Your task to perform on an android device: see tabs open on other devices in the chrome app Image 0: 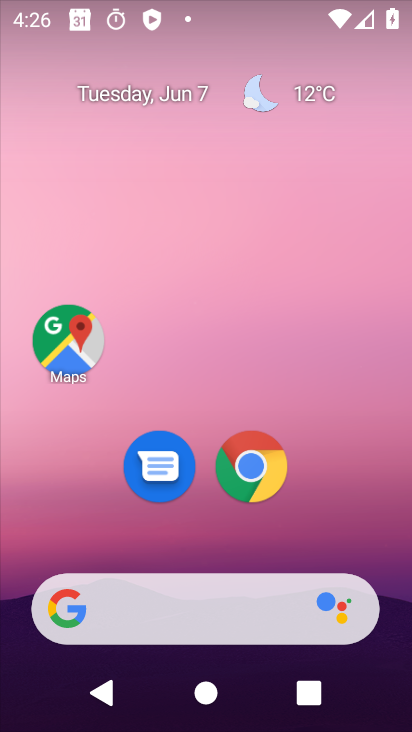
Step 0: click (256, 454)
Your task to perform on an android device: see tabs open on other devices in the chrome app Image 1: 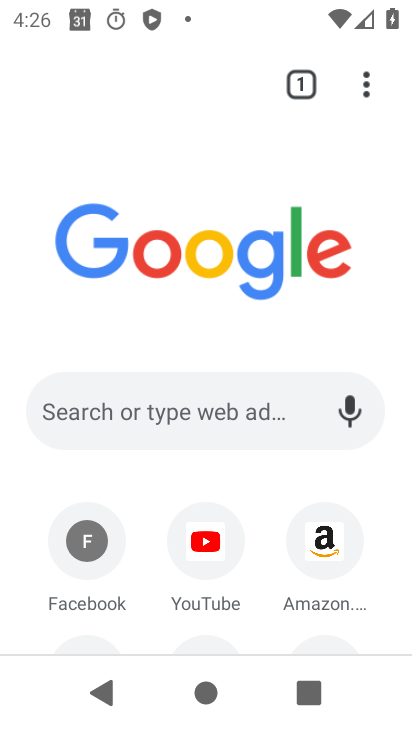
Step 1: click (356, 93)
Your task to perform on an android device: see tabs open on other devices in the chrome app Image 2: 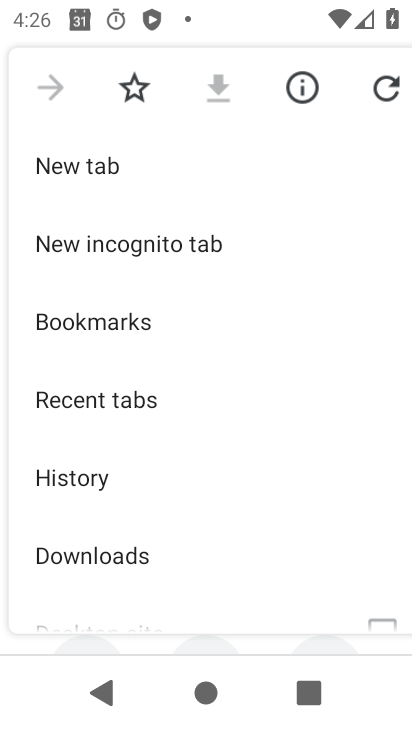
Step 2: click (141, 401)
Your task to perform on an android device: see tabs open on other devices in the chrome app Image 3: 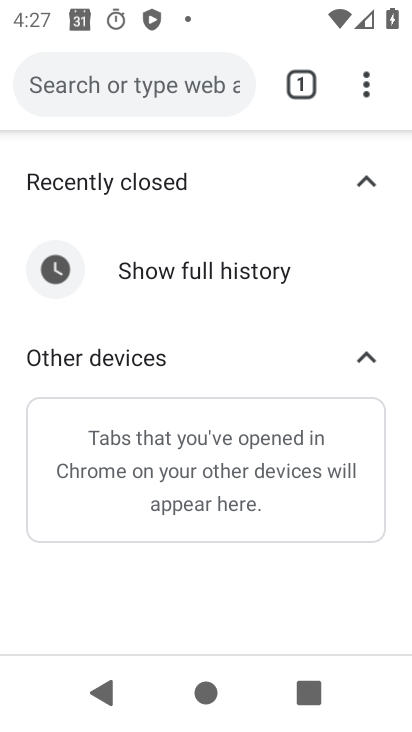
Step 3: task complete